Your task to perform on an android device: Turn off the flashlight Image 0: 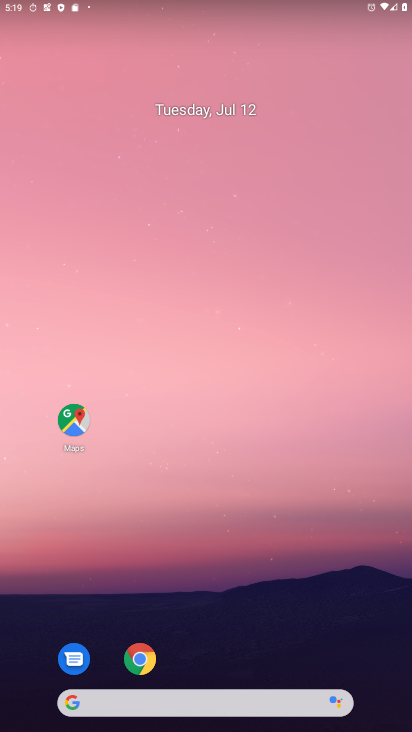
Step 0: drag from (213, 303) to (218, 229)
Your task to perform on an android device: Turn off the flashlight Image 1: 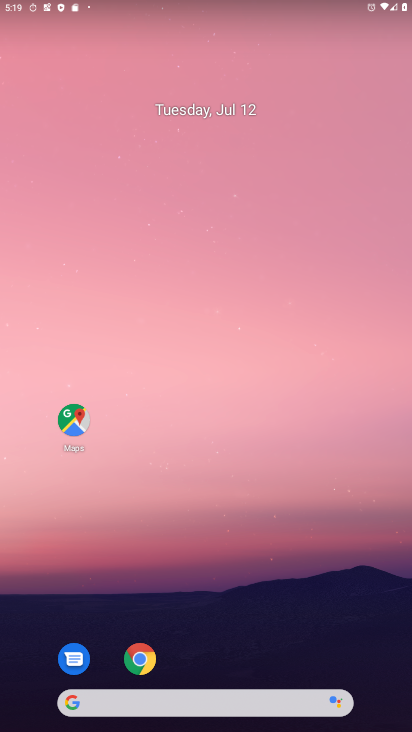
Step 1: drag from (206, 419) to (243, 26)
Your task to perform on an android device: Turn off the flashlight Image 2: 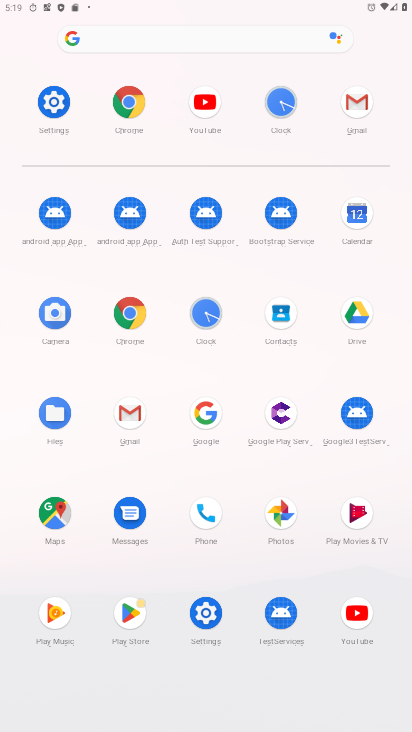
Step 2: click (63, 115)
Your task to perform on an android device: Turn off the flashlight Image 3: 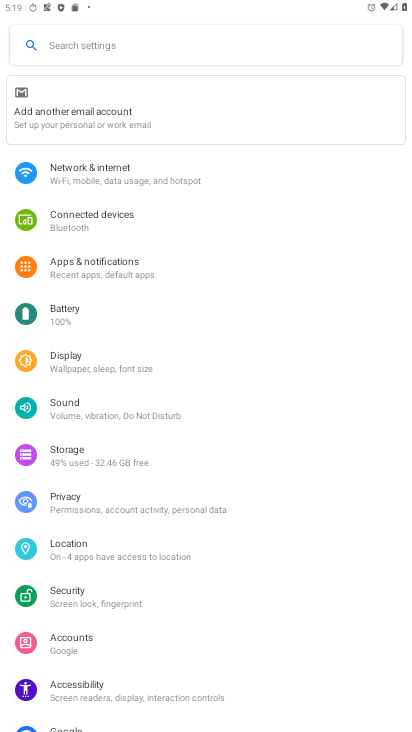
Step 3: task complete